Your task to perform on an android device: open the mobile data screen to see how much data has been used Image 0: 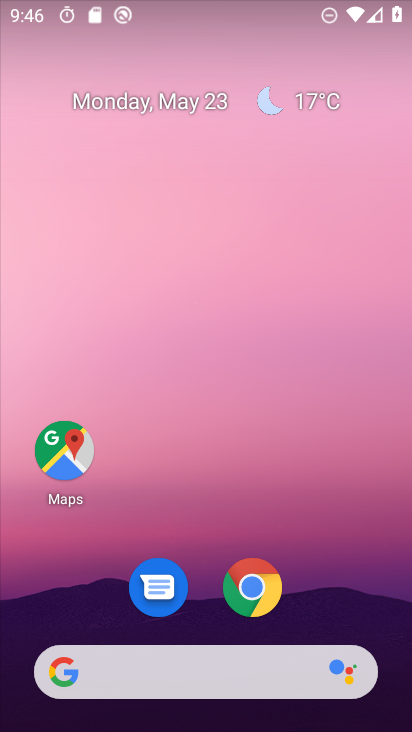
Step 0: drag from (234, 527) to (287, 82)
Your task to perform on an android device: open the mobile data screen to see how much data has been used Image 1: 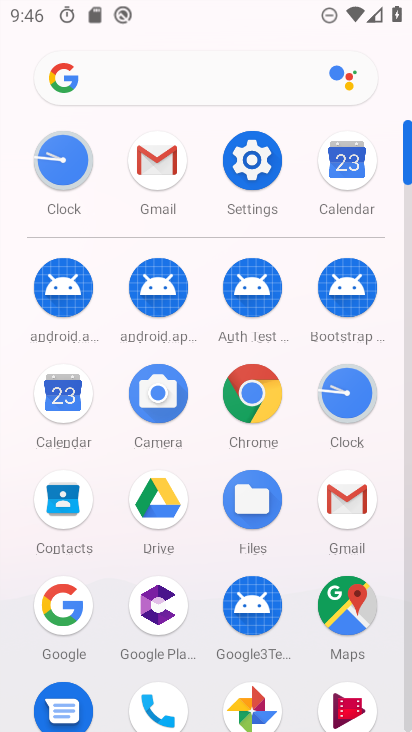
Step 1: click (255, 153)
Your task to perform on an android device: open the mobile data screen to see how much data has been used Image 2: 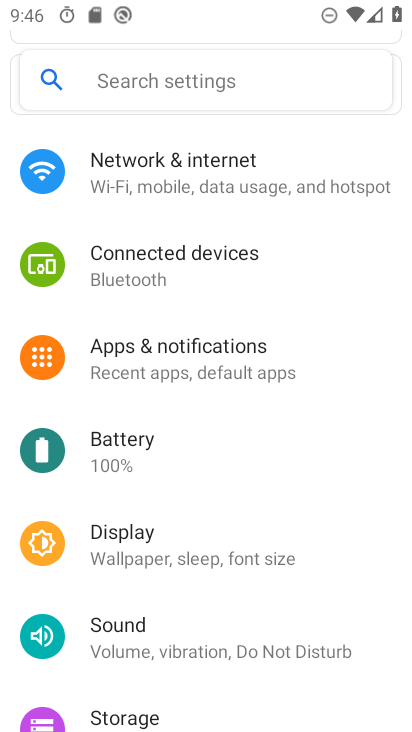
Step 2: click (249, 178)
Your task to perform on an android device: open the mobile data screen to see how much data has been used Image 3: 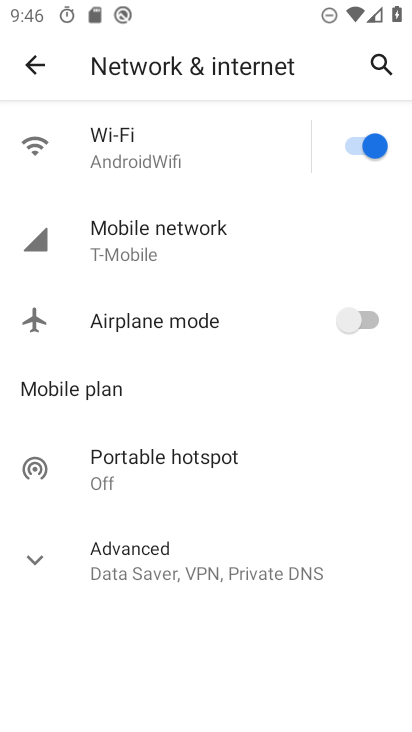
Step 3: click (161, 260)
Your task to perform on an android device: open the mobile data screen to see how much data has been used Image 4: 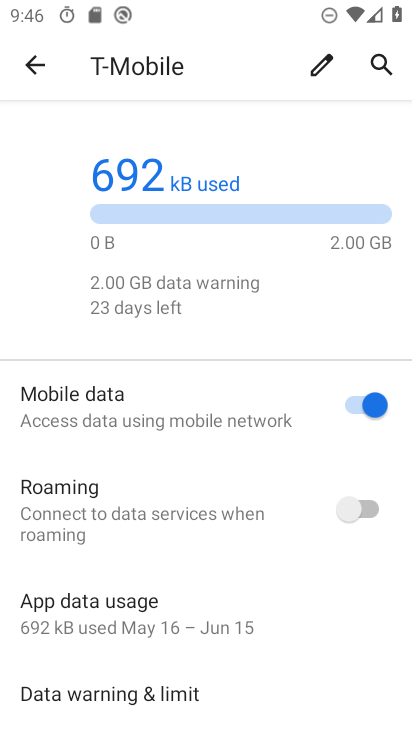
Step 4: click (123, 616)
Your task to perform on an android device: open the mobile data screen to see how much data has been used Image 5: 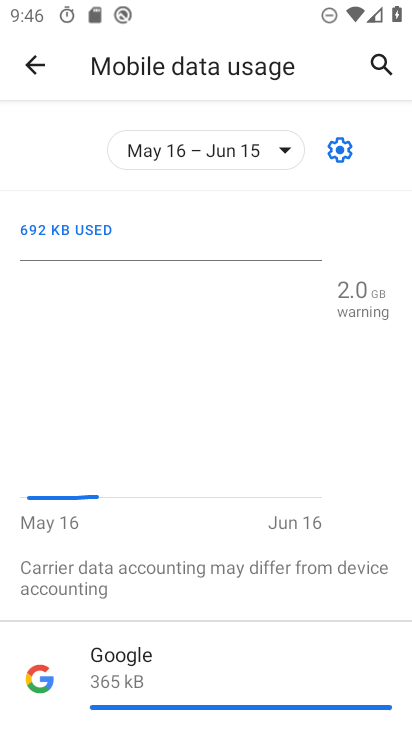
Step 5: task complete